Your task to perform on an android device: uninstall "Roku - Official Remote Control" Image 0: 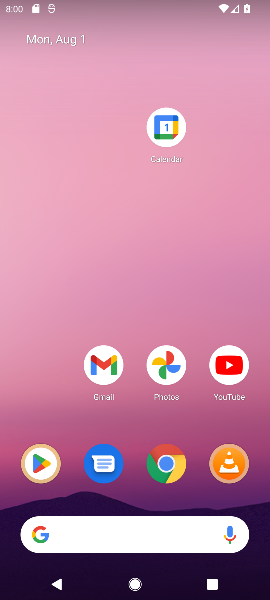
Step 0: click (37, 476)
Your task to perform on an android device: uninstall "Roku - Official Remote Control" Image 1: 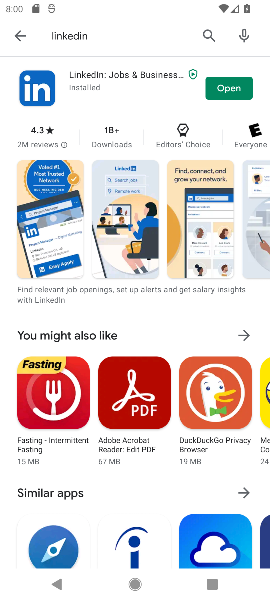
Step 1: click (194, 41)
Your task to perform on an android device: uninstall "Roku - Official Remote Control" Image 2: 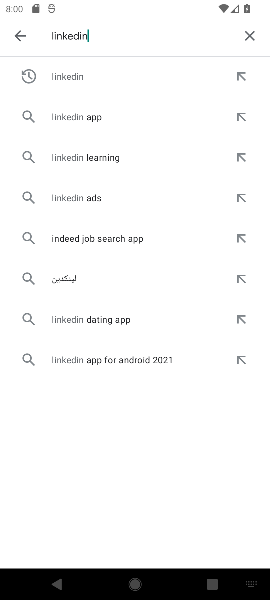
Step 2: click (248, 41)
Your task to perform on an android device: uninstall "Roku - Official Remote Control" Image 3: 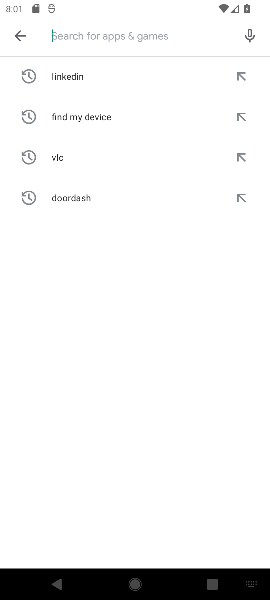
Step 3: type "roku "
Your task to perform on an android device: uninstall "Roku - Official Remote Control" Image 4: 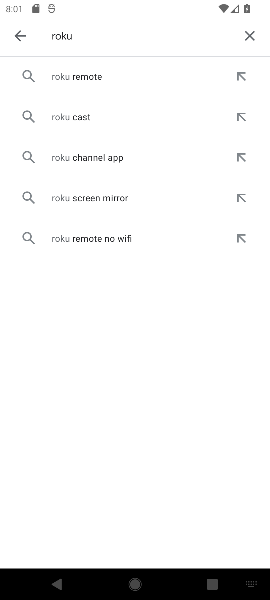
Step 4: click (99, 77)
Your task to perform on an android device: uninstall "Roku - Official Remote Control" Image 5: 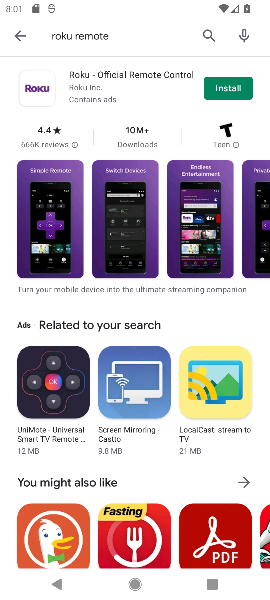
Step 5: click (215, 96)
Your task to perform on an android device: uninstall "Roku - Official Remote Control" Image 6: 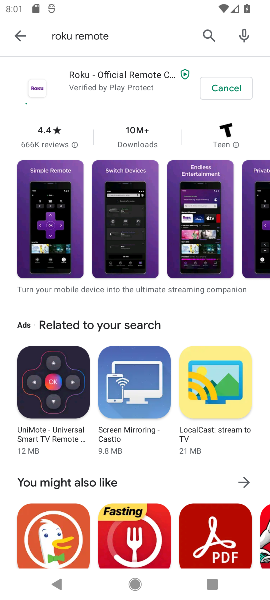
Step 6: task complete